Your task to perform on an android device: Open Reddit.com Image 0: 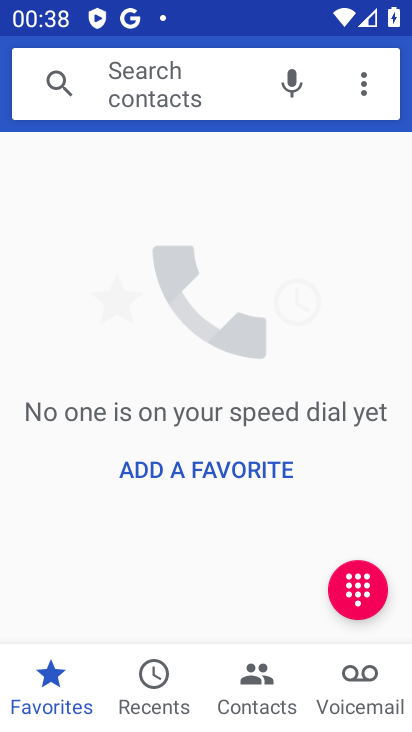
Step 0: press home button
Your task to perform on an android device: Open Reddit.com Image 1: 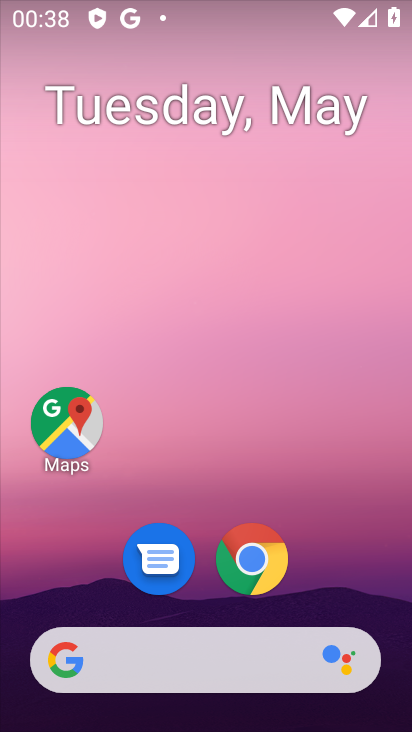
Step 1: click (245, 558)
Your task to perform on an android device: Open Reddit.com Image 2: 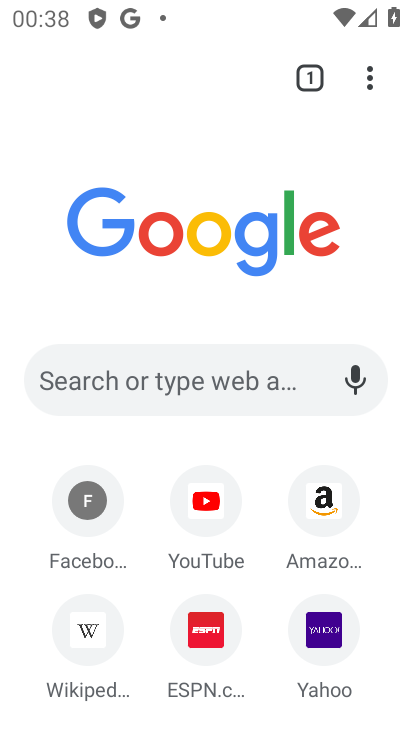
Step 2: click (264, 379)
Your task to perform on an android device: Open Reddit.com Image 3: 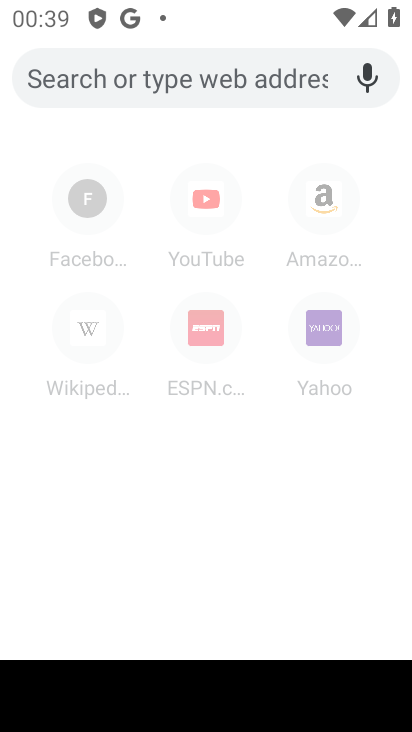
Step 3: type "Reddit.com"
Your task to perform on an android device: Open Reddit.com Image 4: 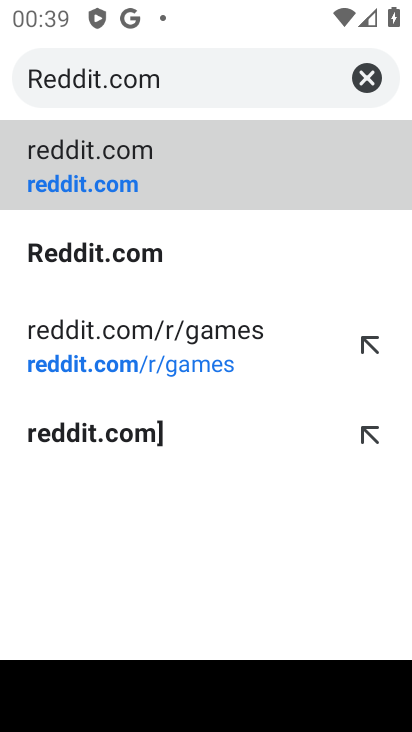
Step 4: click (96, 164)
Your task to perform on an android device: Open Reddit.com Image 5: 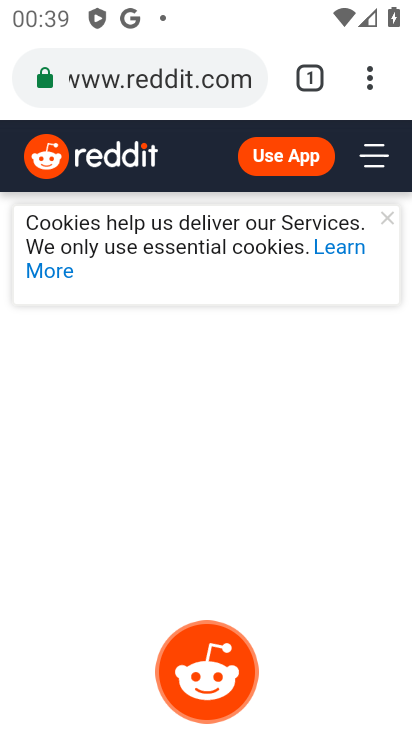
Step 5: task complete